Your task to perform on an android device: Open Google Maps and go to "Timeline" Image 0: 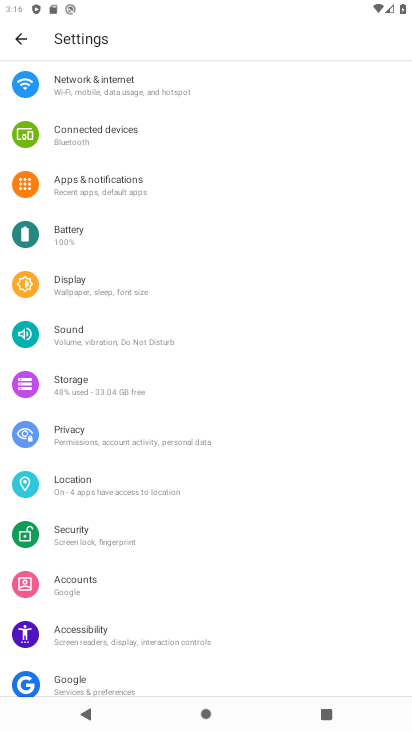
Step 0: press home button
Your task to perform on an android device: Open Google Maps and go to "Timeline" Image 1: 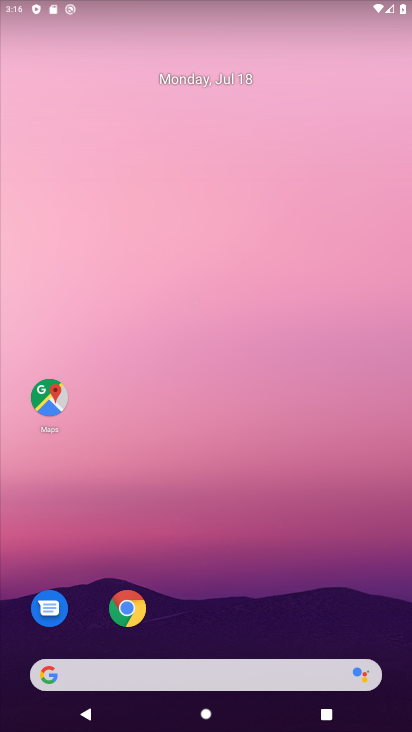
Step 1: drag from (308, 609) to (292, 141)
Your task to perform on an android device: Open Google Maps and go to "Timeline" Image 2: 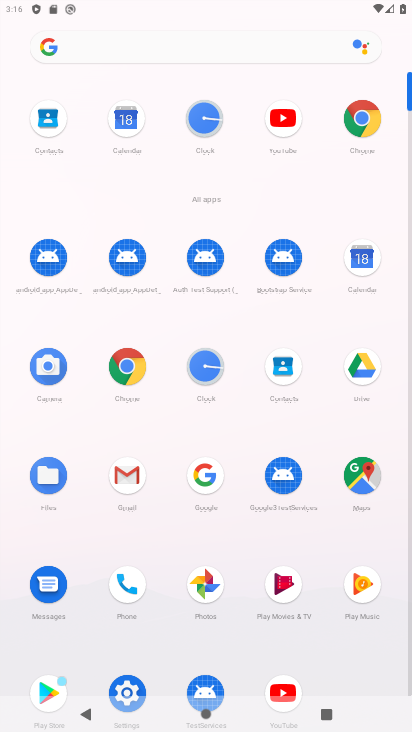
Step 2: click (361, 480)
Your task to perform on an android device: Open Google Maps and go to "Timeline" Image 3: 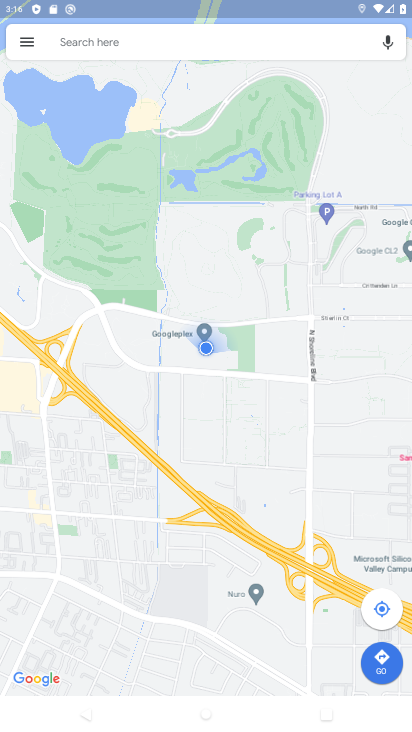
Step 3: click (24, 40)
Your task to perform on an android device: Open Google Maps and go to "Timeline" Image 4: 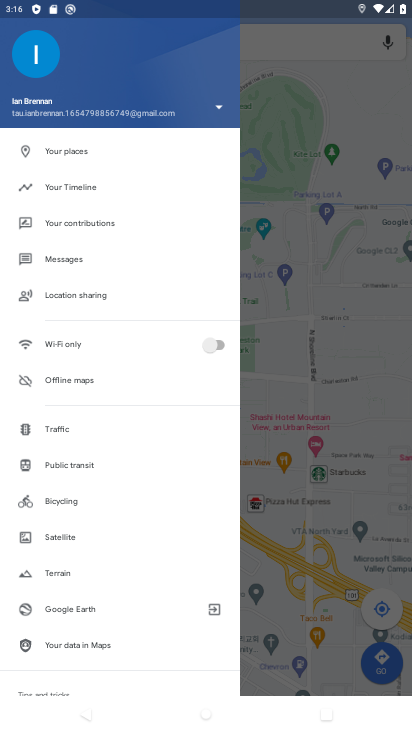
Step 4: click (84, 185)
Your task to perform on an android device: Open Google Maps and go to "Timeline" Image 5: 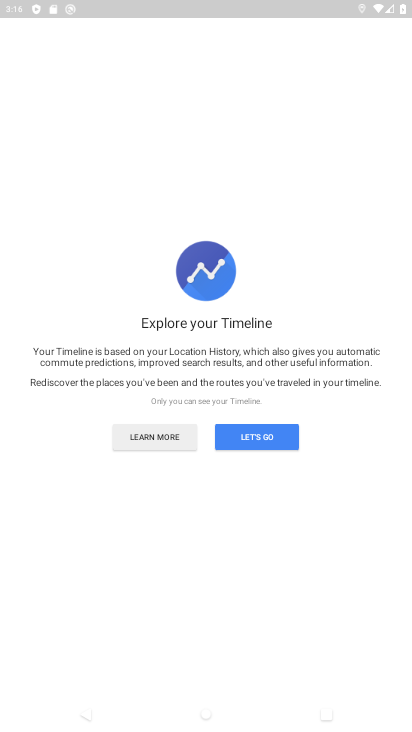
Step 5: click (247, 440)
Your task to perform on an android device: Open Google Maps and go to "Timeline" Image 6: 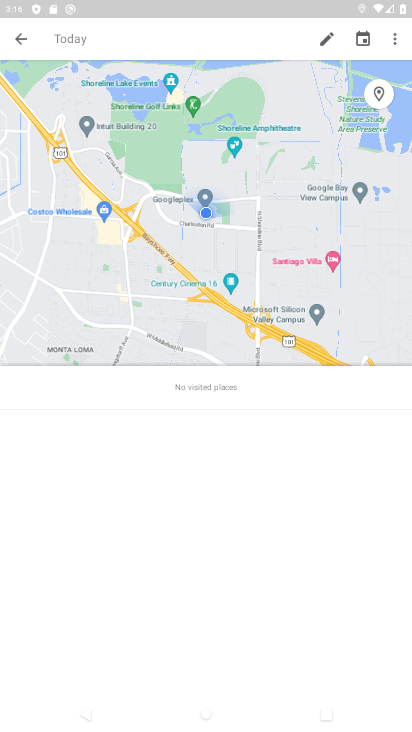
Step 6: task complete